Your task to perform on an android device: open a new tab in the chrome app Image 0: 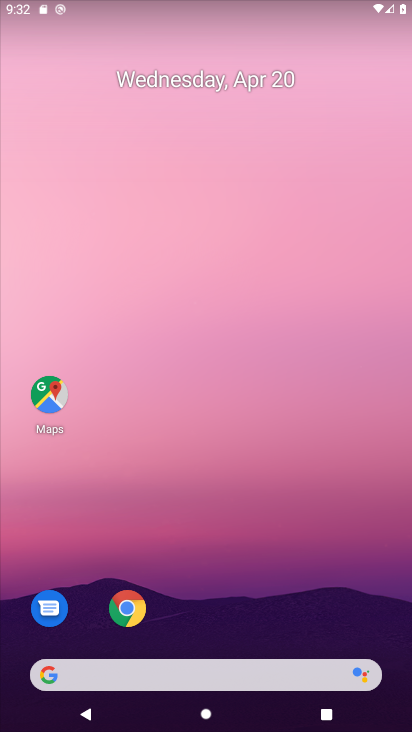
Step 0: click (128, 611)
Your task to perform on an android device: open a new tab in the chrome app Image 1: 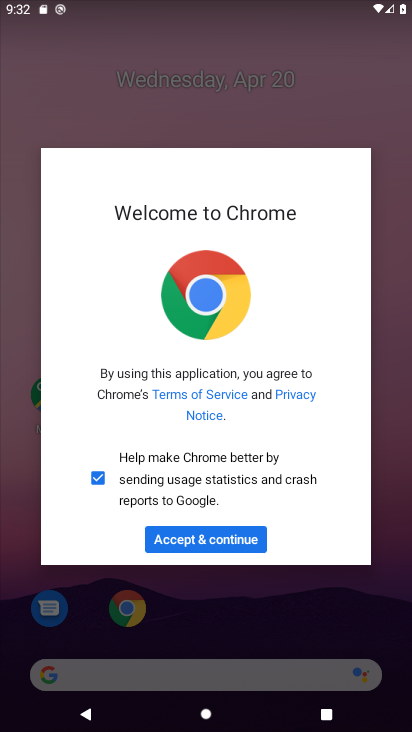
Step 1: click (214, 545)
Your task to perform on an android device: open a new tab in the chrome app Image 2: 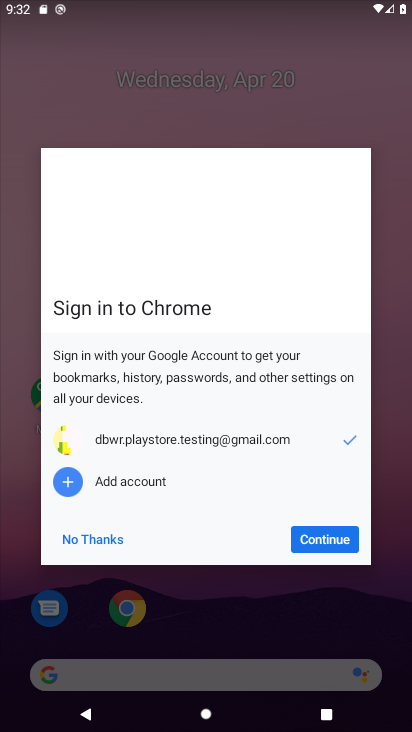
Step 2: click (299, 530)
Your task to perform on an android device: open a new tab in the chrome app Image 3: 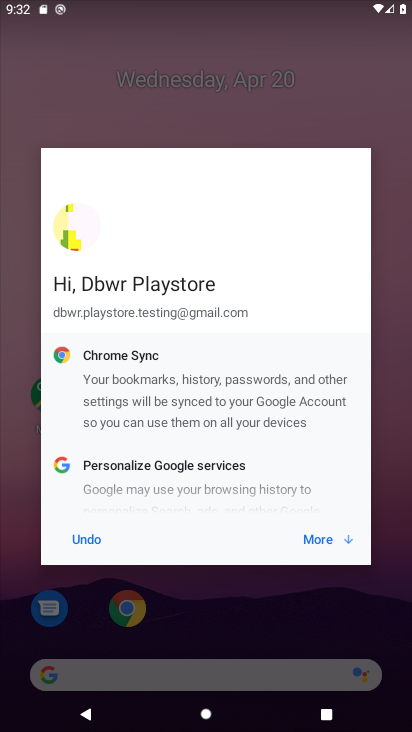
Step 3: click (314, 536)
Your task to perform on an android device: open a new tab in the chrome app Image 4: 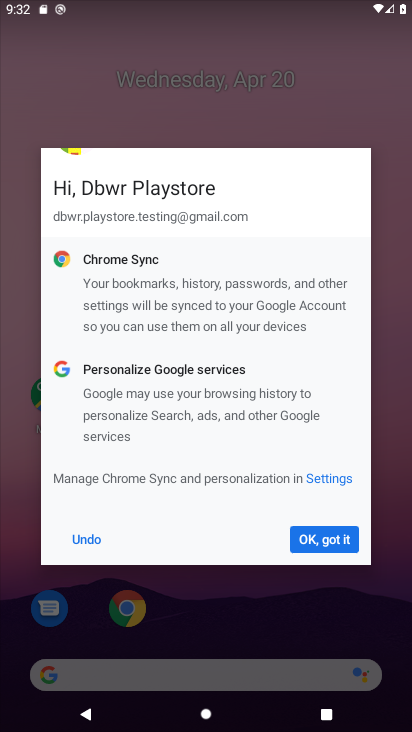
Step 4: click (314, 536)
Your task to perform on an android device: open a new tab in the chrome app Image 5: 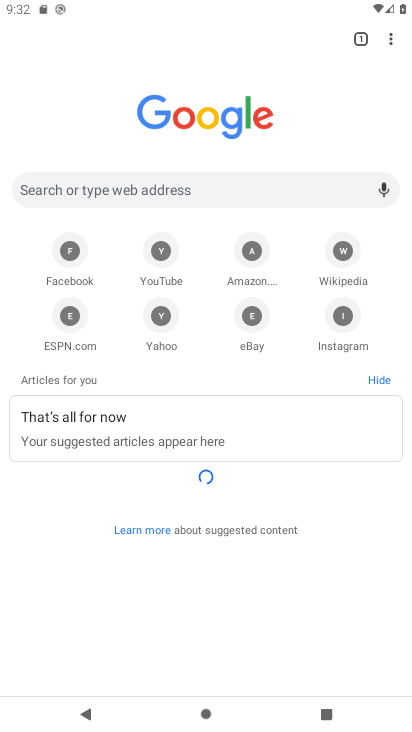
Step 5: click (357, 38)
Your task to perform on an android device: open a new tab in the chrome app Image 6: 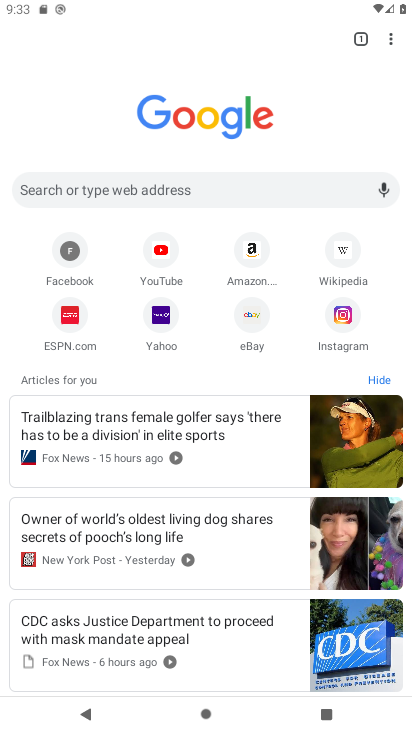
Step 6: click (390, 40)
Your task to perform on an android device: open a new tab in the chrome app Image 7: 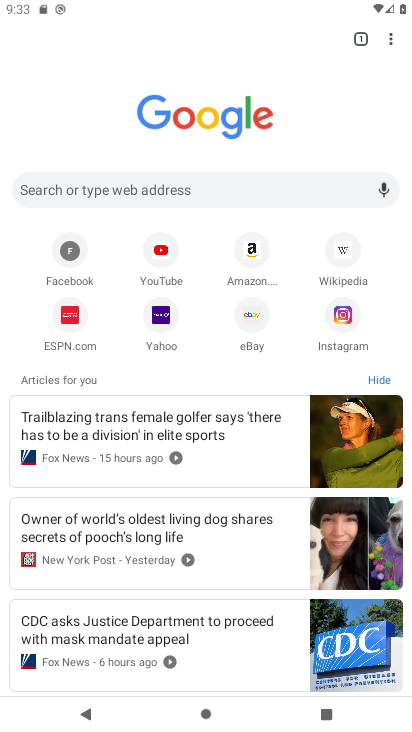
Step 7: click (386, 38)
Your task to perform on an android device: open a new tab in the chrome app Image 8: 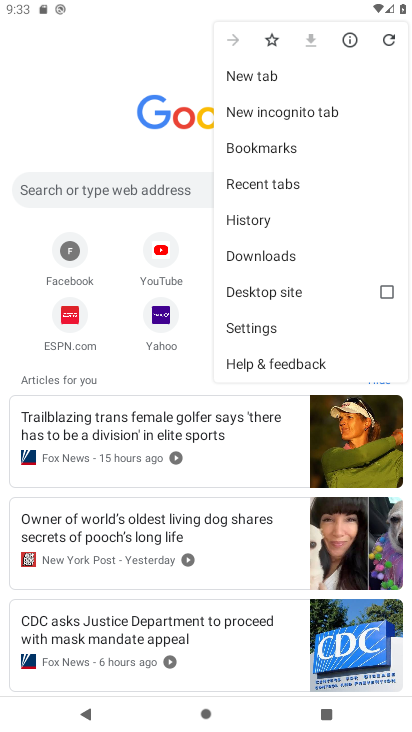
Step 8: click (260, 76)
Your task to perform on an android device: open a new tab in the chrome app Image 9: 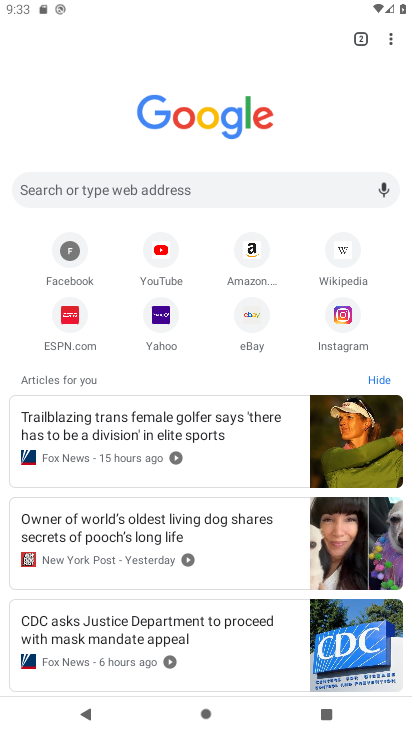
Step 9: task complete